Your task to perform on an android device: turn on airplane mode Image 0: 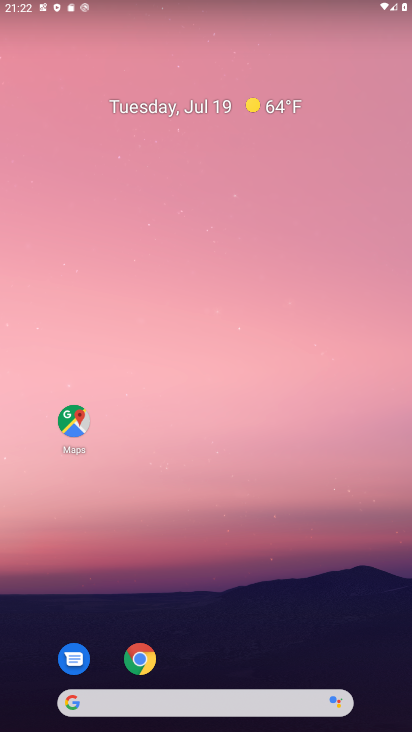
Step 0: drag from (188, 9) to (273, 616)
Your task to perform on an android device: turn on airplane mode Image 1: 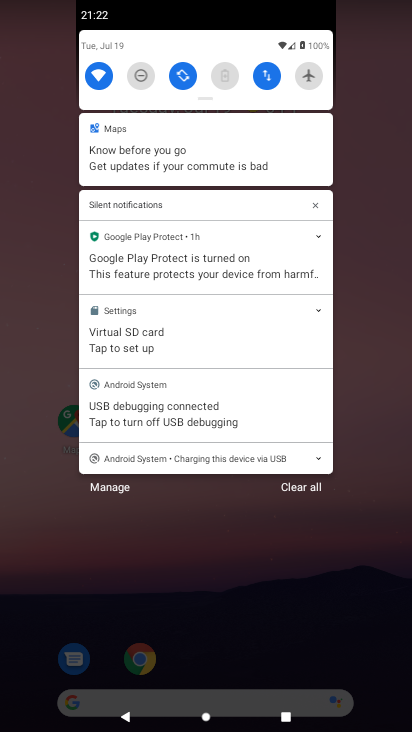
Step 1: click (308, 87)
Your task to perform on an android device: turn on airplane mode Image 2: 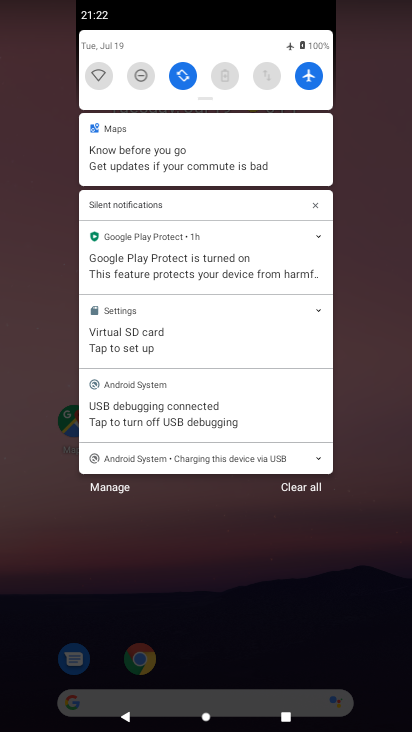
Step 2: task complete